Your task to perform on an android device: turn on showing notifications on the lock screen Image 0: 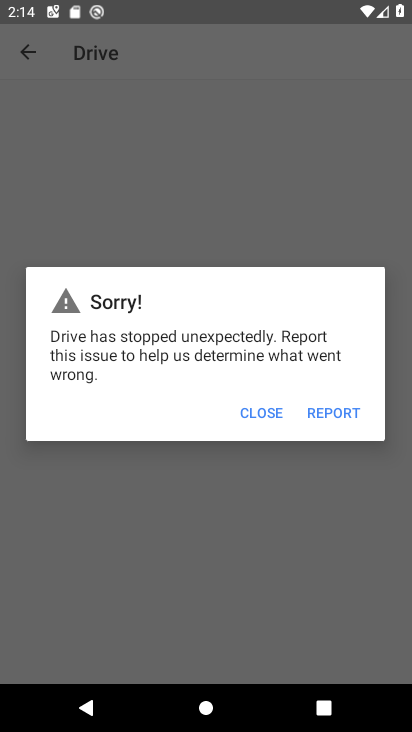
Step 0: press home button
Your task to perform on an android device: turn on showing notifications on the lock screen Image 1: 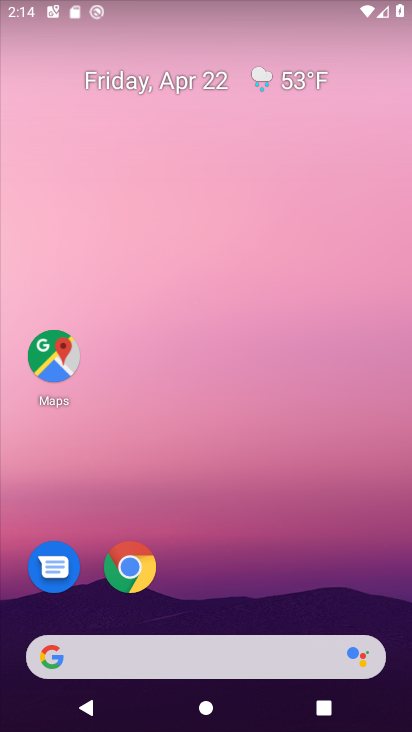
Step 1: drag from (301, 513) to (299, 83)
Your task to perform on an android device: turn on showing notifications on the lock screen Image 2: 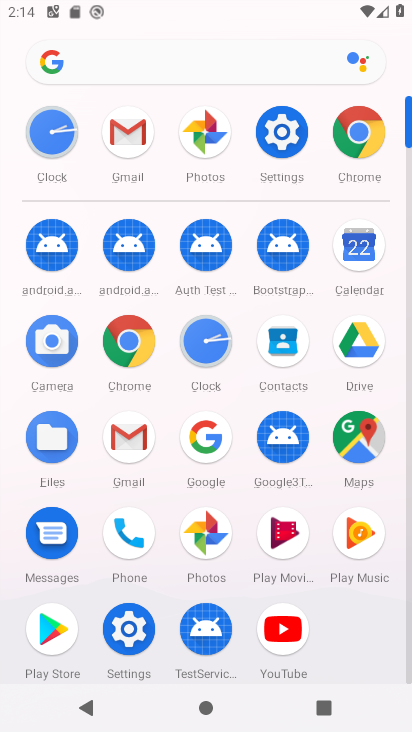
Step 2: click (277, 119)
Your task to perform on an android device: turn on showing notifications on the lock screen Image 3: 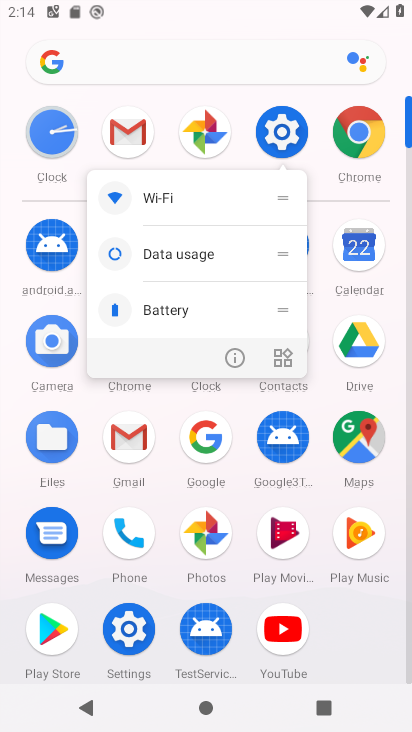
Step 3: click (277, 117)
Your task to perform on an android device: turn on showing notifications on the lock screen Image 4: 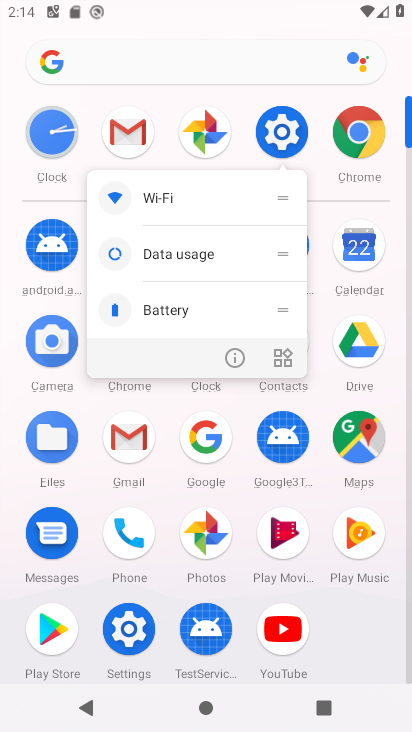
Step 4: click (277, 117)
Your task to perform on an android device: turn on showing notifications on the lock screen Image 5: 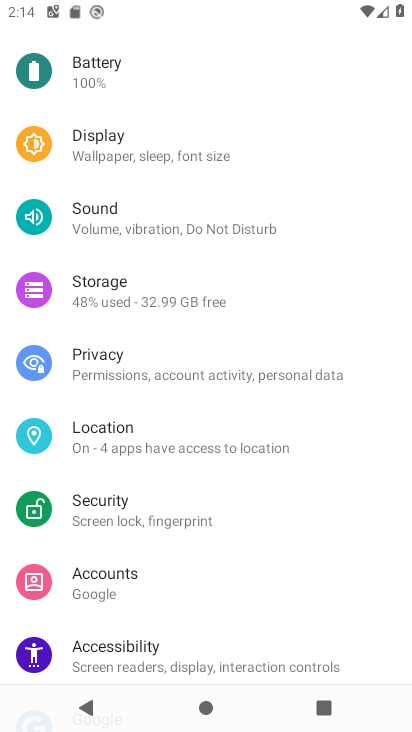
Step 5: drag from (208, 154) to (217, 558)
Your task to perform on an android device: turn on showing notifications on the lock screen Image 6: 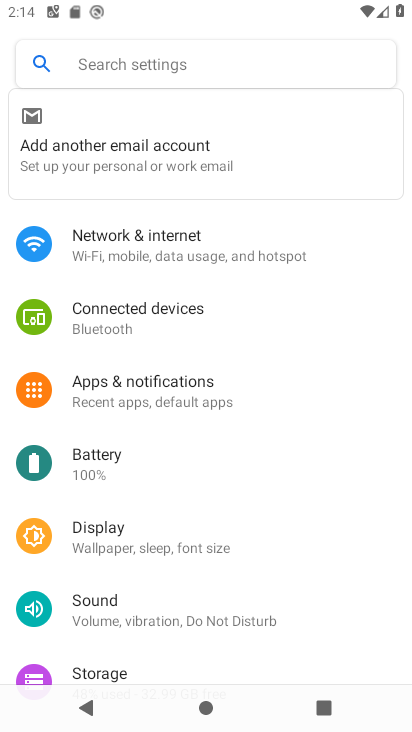
Step 6: click (181, 378)
Your task to perform on an android device: turn on showing notifications on the lock screen Image 7: 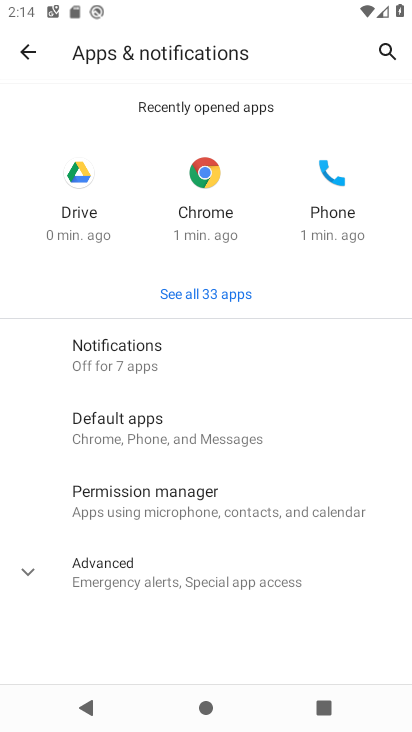
Step 7: click (151, 352)
Your task to perform on an android device: turn on showing notifications on the lock screen Image 8: 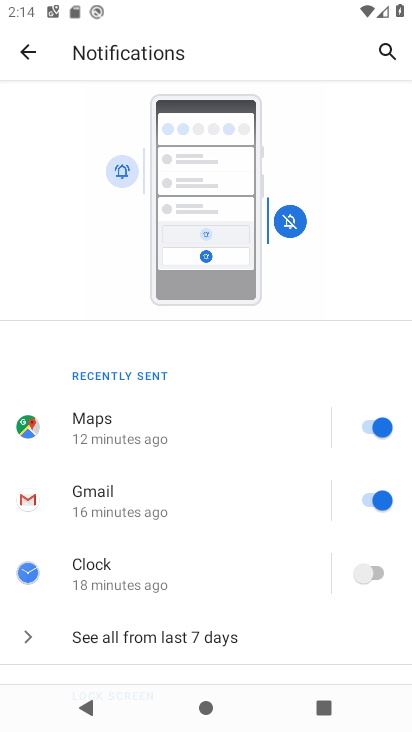
Step 8: drag from (266, 529) to (282, 176)
Your task to perform on an android device: turn on showing notifications on the lock screen Image 9: 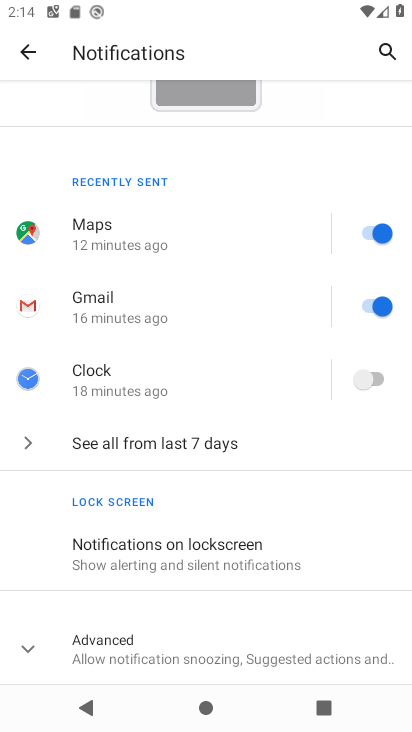
Step 9: click (257, 549)
Your task to perform on an android device: turn on showing notifications on the lock screen Image 10: 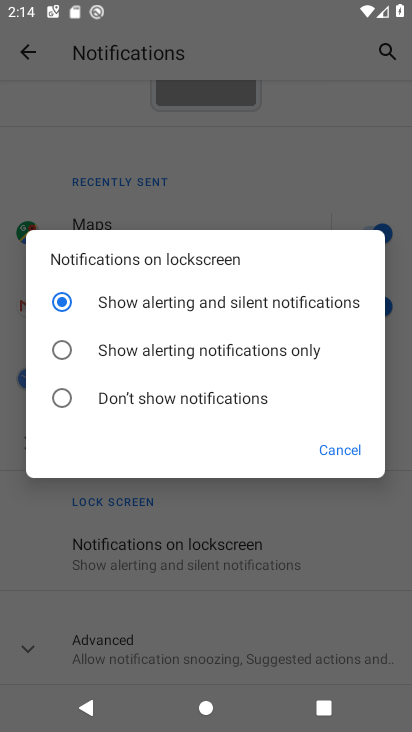
Step 10: click (346, 449)
Your task to perform on an android device: turn on showing notifications on the lock screen Image 11: 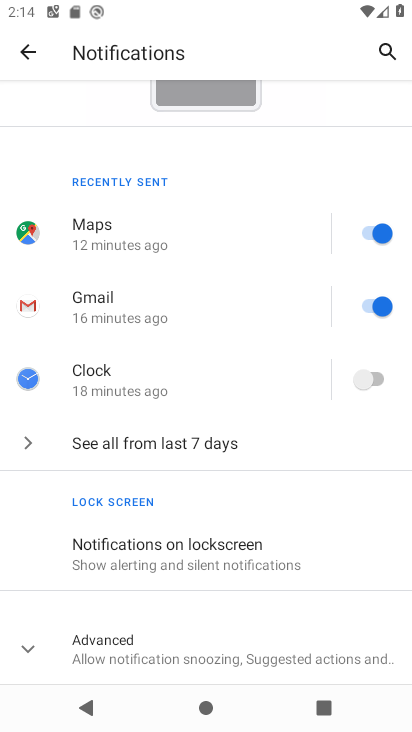
Step 11: task complete